Your task to perform on an android device: Open CNN.com Image 0: 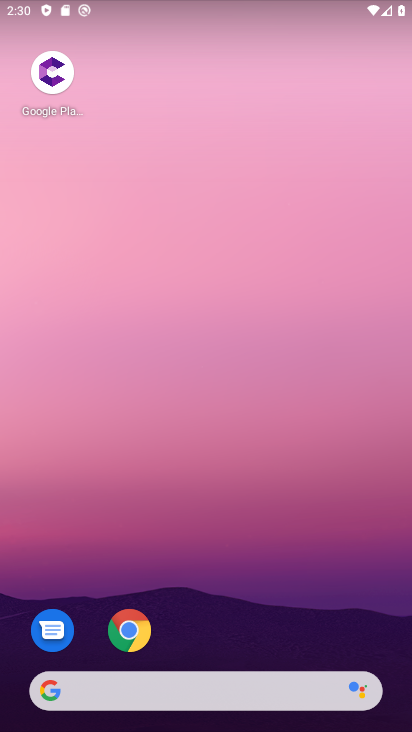
Step 0: click (132, 630)
Your task to perform on an android device: Open CNN.com Image 1: 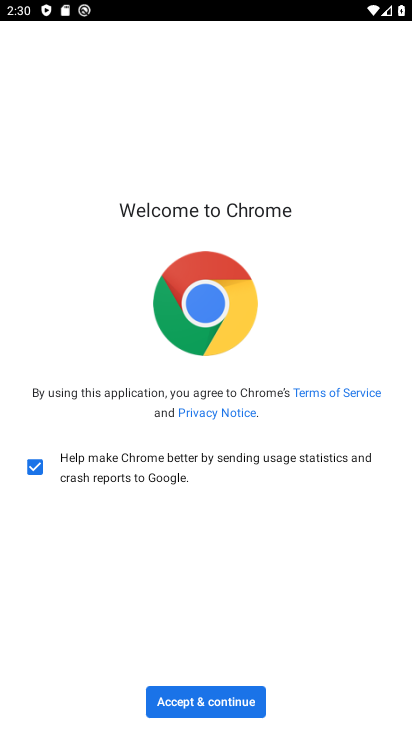
Step 1: click (205, 702)
Your task to perform on an android device: Open CNN.com Image 2: 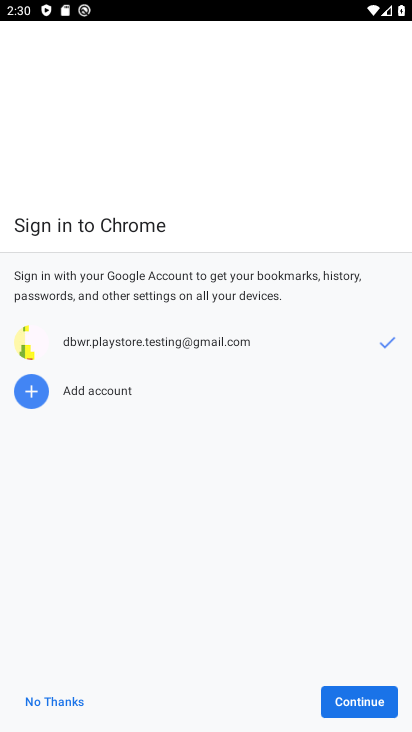
Step 2: click (346, 705)
Your task to perform on an android device: Open CNN.com Image 3: 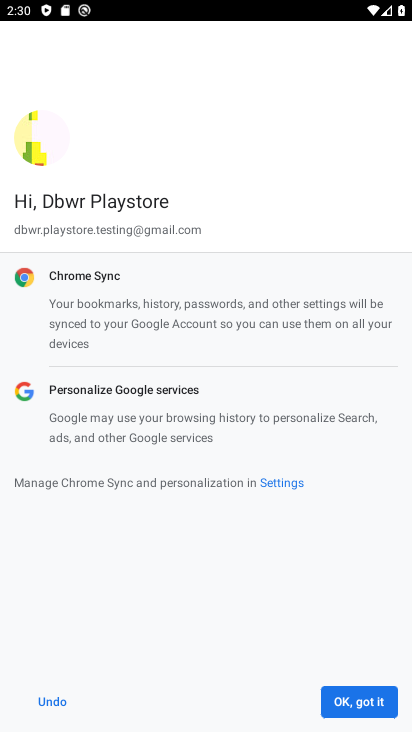
Step 3: click (346, 698)
Your task to perform on an android device: Open CNN.com Image 4: 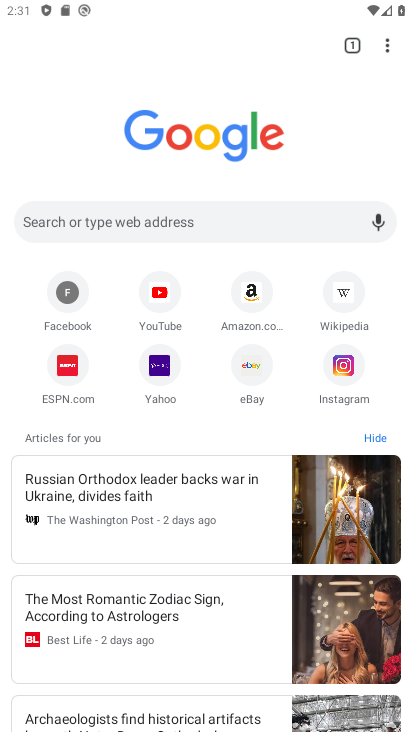
Step 4: click (169, 214)
Your task to perform on an android device: Open CNN.com Image 5: 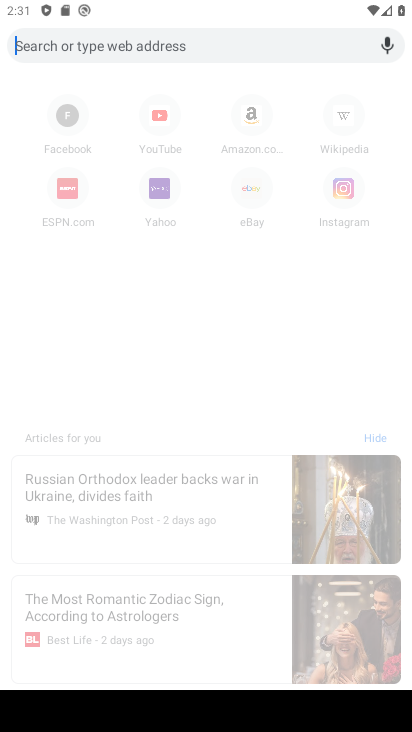
Step 5: type "CNN.com"
Your task to perform on an android device: Open CNN.com Image 6: 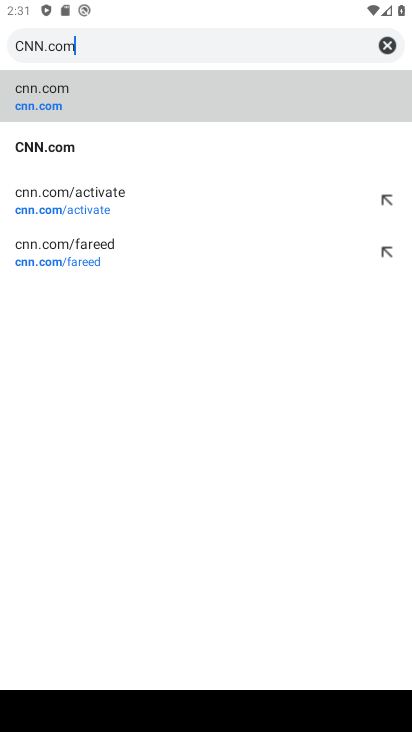
Step 6: click (38, 89)
Your task to perform on an android device: Open CNN.com Image 7: 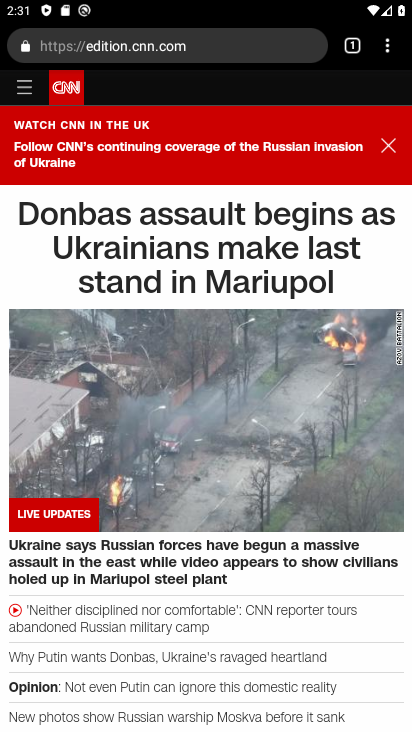
Step 7: task complete